Your task to perform on an android device: Open the stopwatch Image 0: 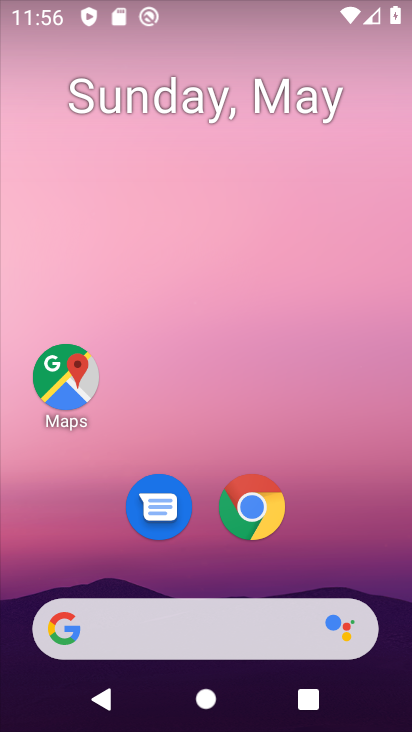
Step 0: drag from (230, 681) to (230, 150)
Your task to perform on an android device: Open the stopwatch Image 1: 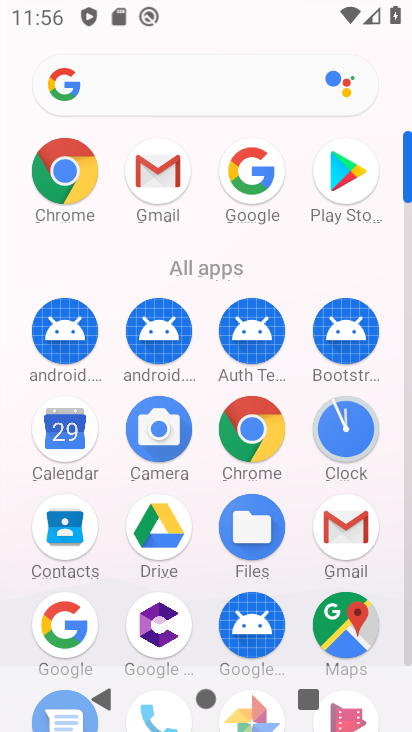
Step 1: click (343, 438)
Your task to perform on an android device: Open the stopwatch Image 2: 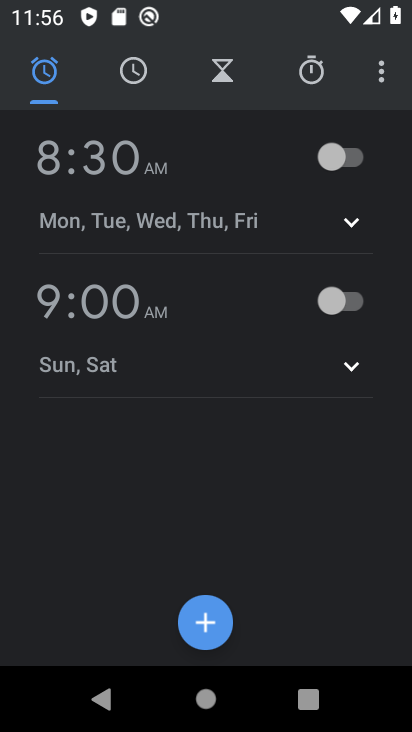
Step 2: click (306, 71)
Your task to perform on an android device: Open the stopwatch Image 3: 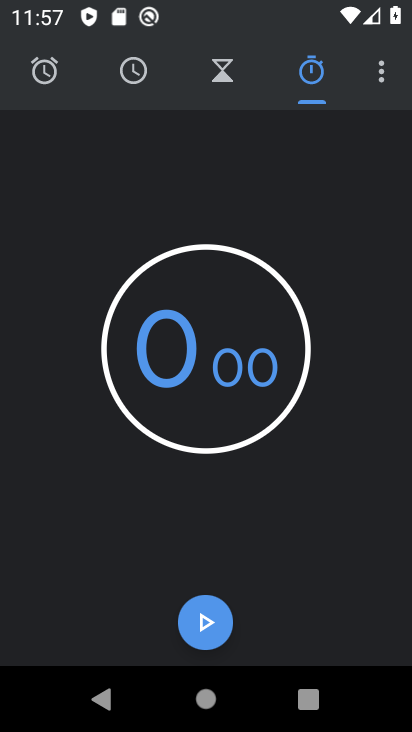
Step 3: task complete